Your task to perform on an android device: find photos in the google photos app Image 0: 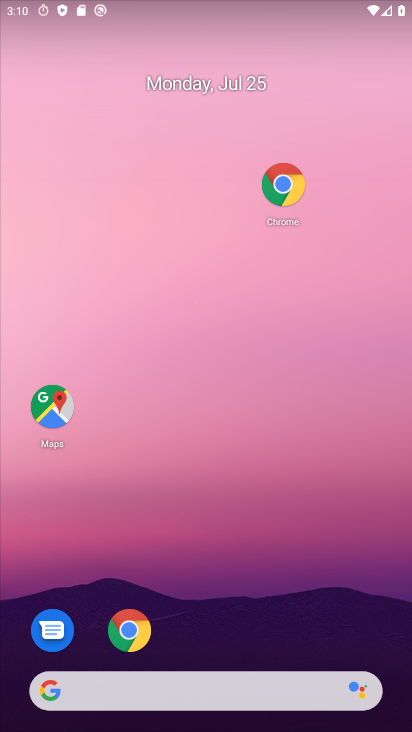
Step 0: drag from (218, 669) to (258, 45)
Your task to perform on an android device: find photos in the google photos app Image 1: 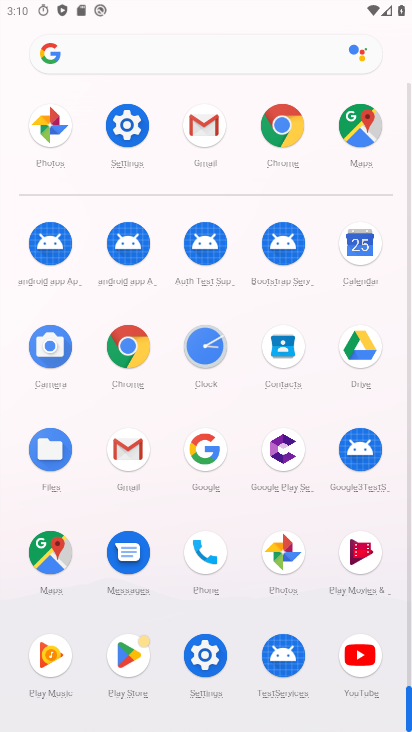
Step 1: drag from (296, 428) to (243, 66)
Your task to perform on an android device: find photos in the google photos app Image 2: 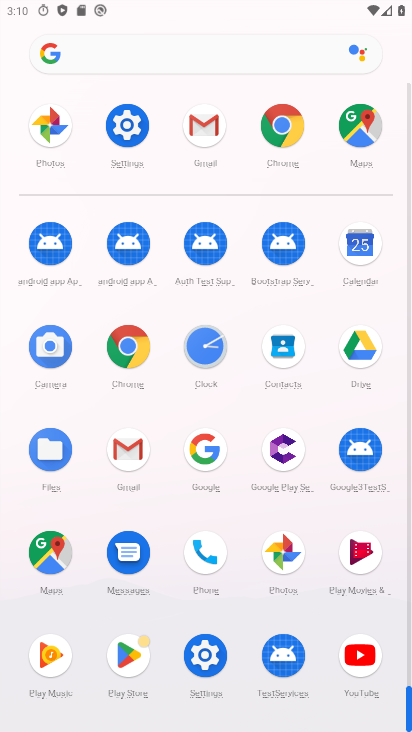
Step 2: click (273, 541)
Your task to perform on an android device: find photos in the google photos app Image 3: 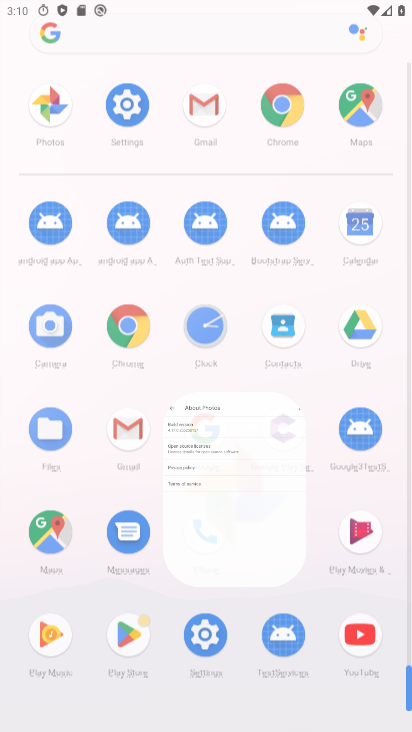
Step 3: click (280, 550)
Your task to perform on an android device: find photos in the google photos app Image 4: 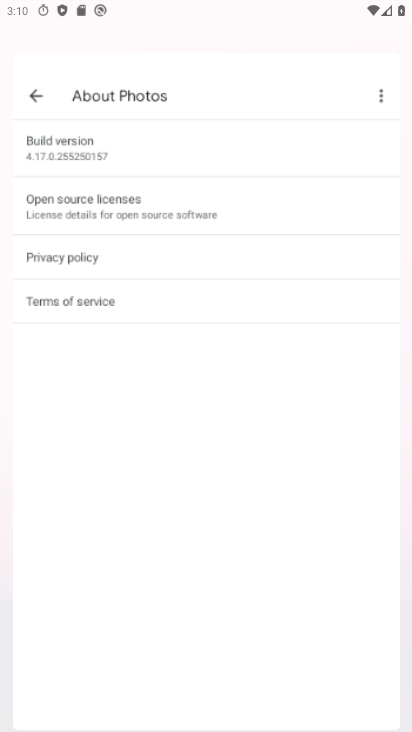
Step 4: click (282, 554)
Your task to perform on an android device: find photos in the google photos app Image 5: 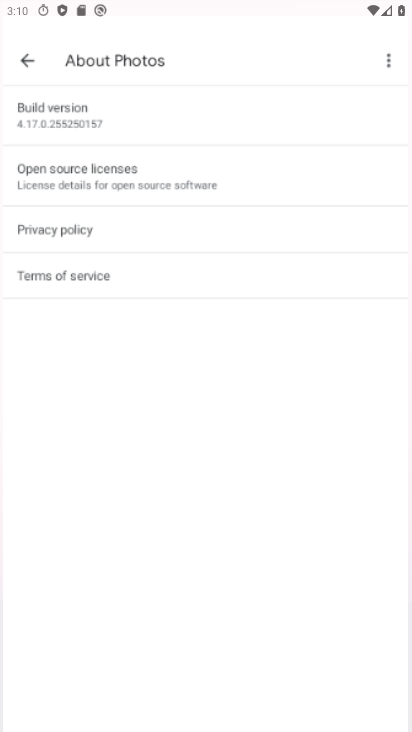
Step 5: click (282, 555)
Your task to perform on an android device: find photos in the google photos app Image 6: 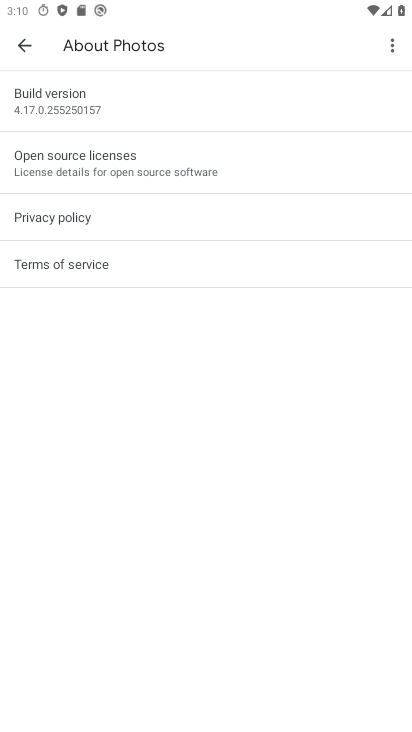
Step 6: click (12, 40)
Your task to perform on an android device: find photos in the google photos app Image 7: 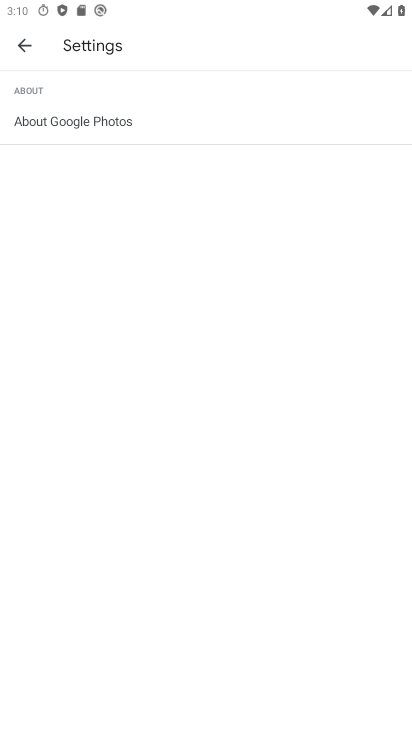
Step 7: click (58, 122)
Your task to perform on an android device: find photos in the google photos app Image 8: 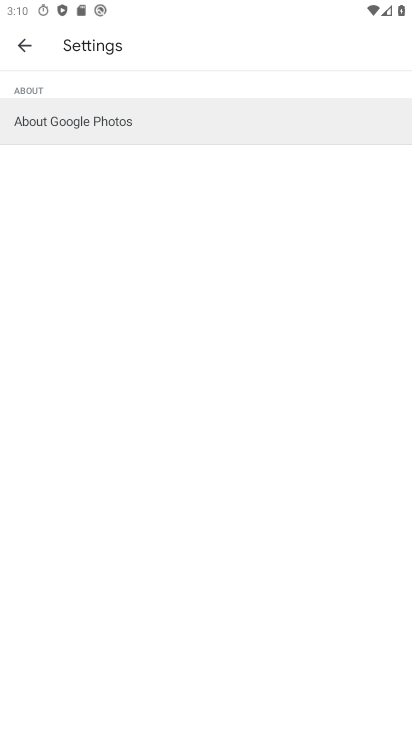
Step 8: click (20, 39)
Your task to perform on an android device: find photos in the google photos app Image 9: 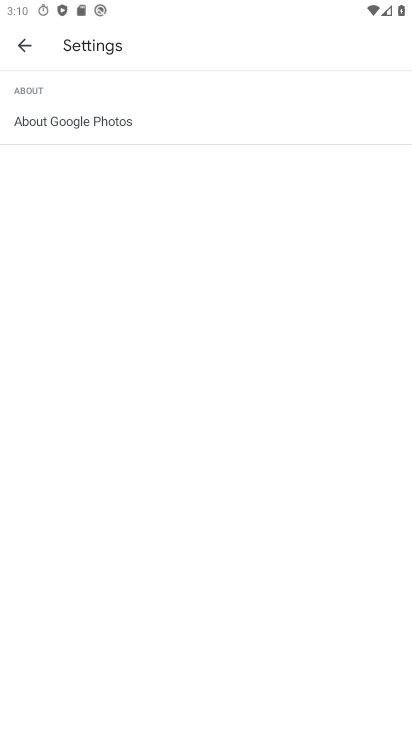
Step 9: click (20, 39)
Your task to perform on an android device: find photos in the google photos app Image 10: 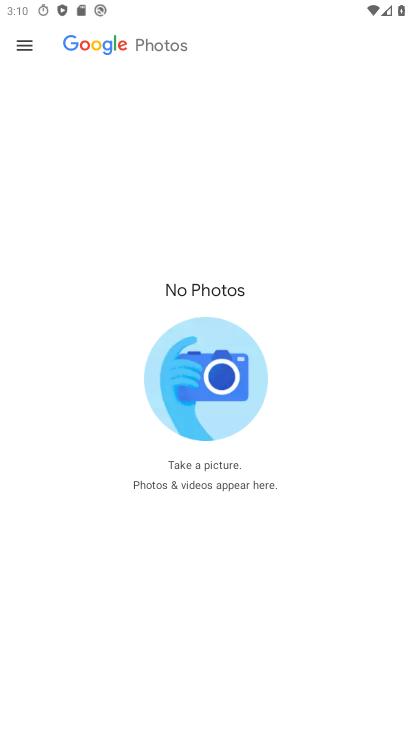
Step 10: click (22, 43)
Your task to perform on an android device: find photos in the google photos app Image 11: 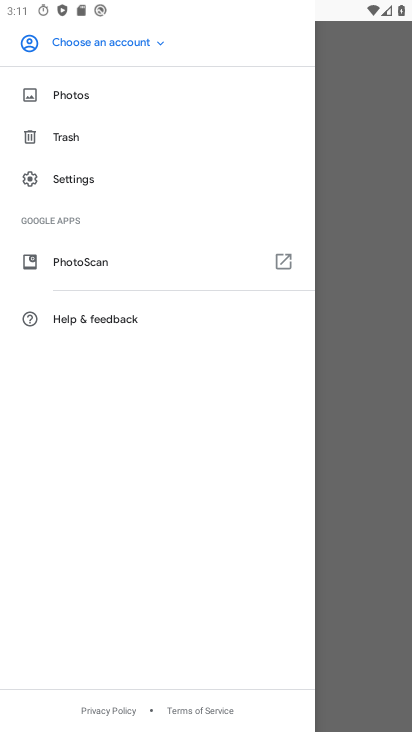
Step 11: click (78, 180)
Your task to perform on an android device: find photos in the google photos app Image 12: 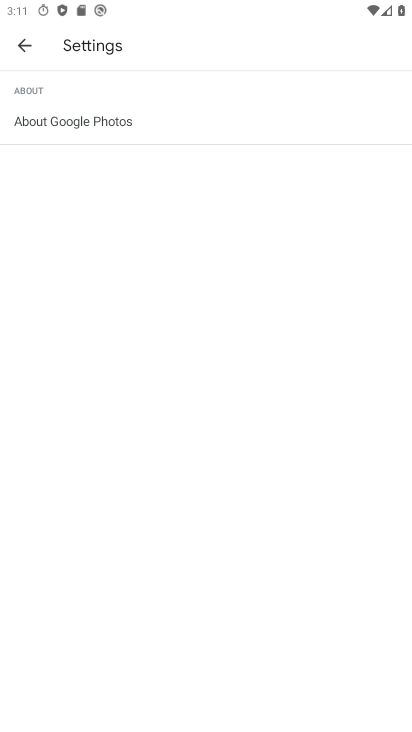
Step 12: click (17, 41)
Your task to perform on an android device: find photos in the google photos app Image 13: 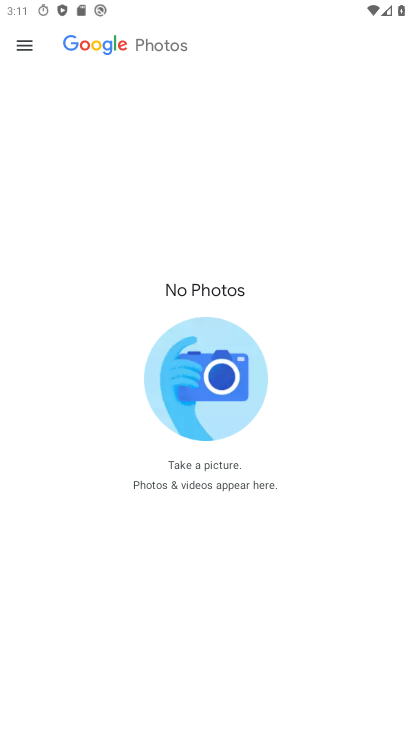
Step 13: click (20, 40)
Your task to perform on an android device: find photos in the google photos app Image 14: 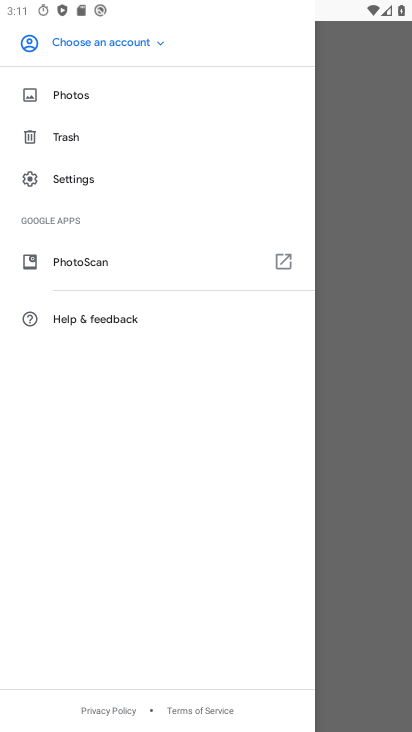
Step 14: click (79, 92)
Your task to perform on an android device: find photos in the google photos app Image 15: 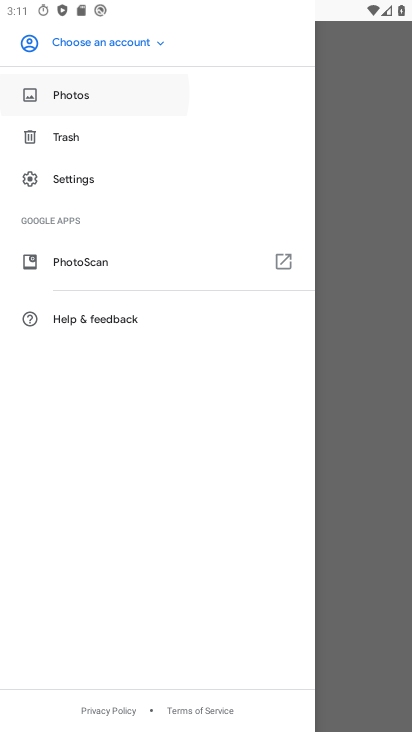
Step 15: click (80, 93)
Your task to perform on an android device: find photos in the google photos app Image 16: 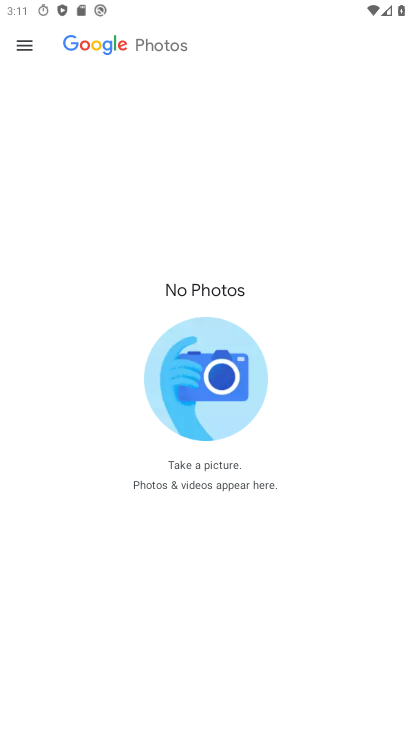
Step 16: task complete